Your task to perform on an android device: clear history in the chrome app Image 0: 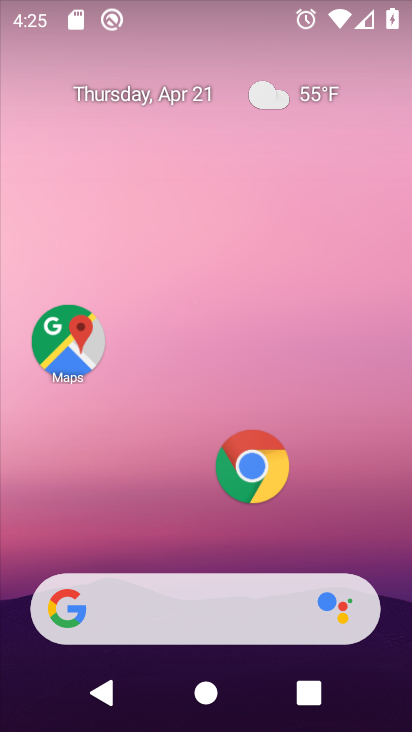
Step 0: click (268, 464)
Your task to perform on an android device: clear history in the chrome app Image 1: 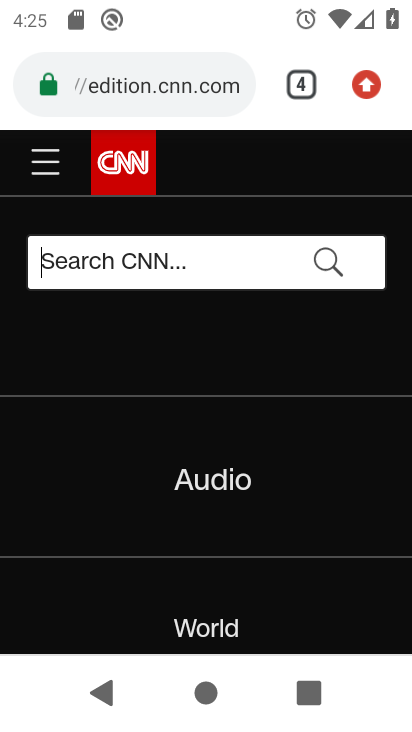
Step 1: task complete